Your task to perform on an android device: turn off airplane mode Image 0: 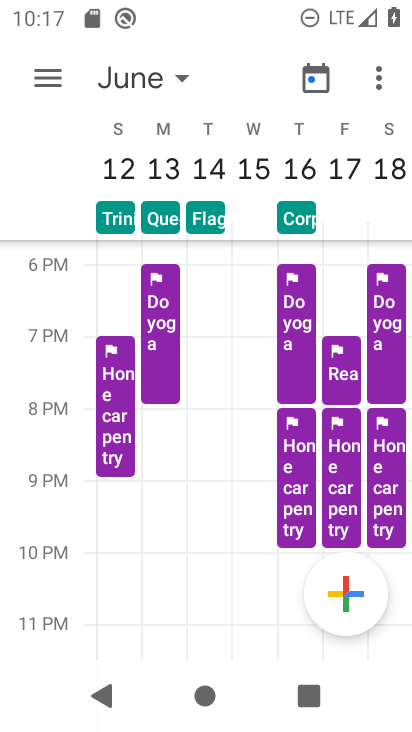
Step 0: press home button
Your task to perform on an android device: turn off airplane mode Image 1: 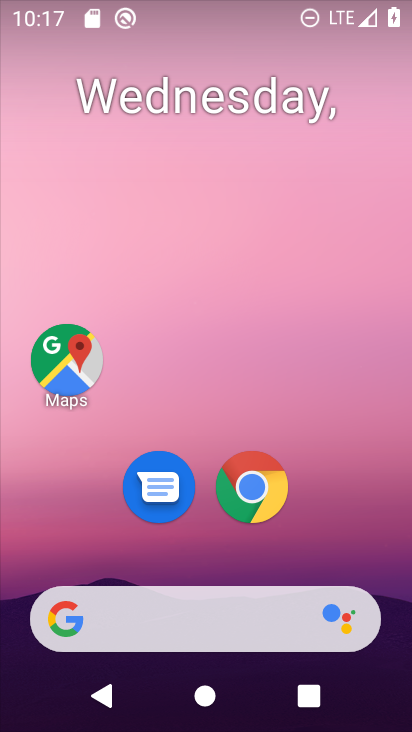
Step 1: drag from (374, 528) to (239, 106)
Your task to perform on an android device: turn off airplane mode Image 2: 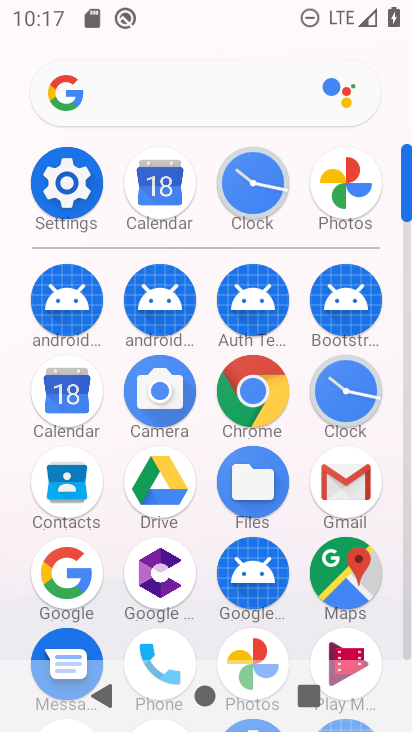
Step 2: click (55, 167)
Your task to perform on an android device: turn off airplane mode Image 3: 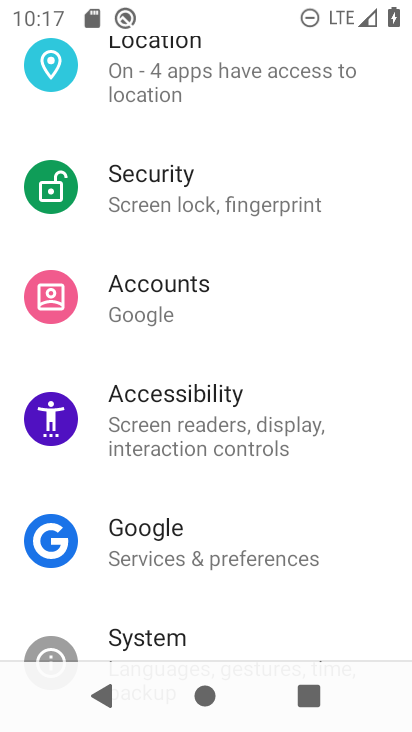
Step 3: drag from (220, 145) to (344, 725)
Your task to perform on an android device: turn off airplane mode Image 4: 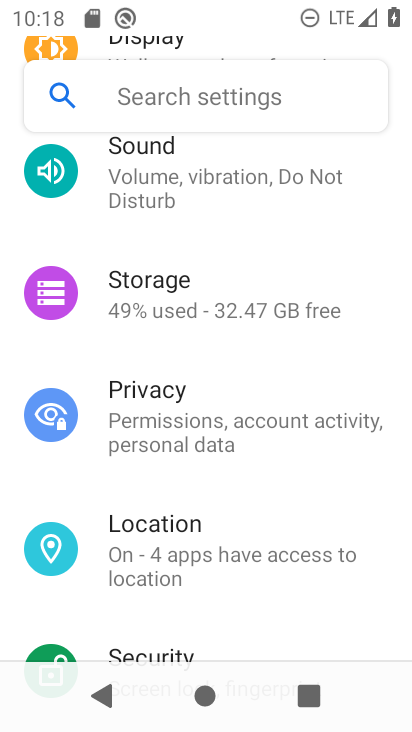
Step 4: drag from (275, 460) to (245, 251)
Your task to perform on an android device: turn off airplane mode Image 5: 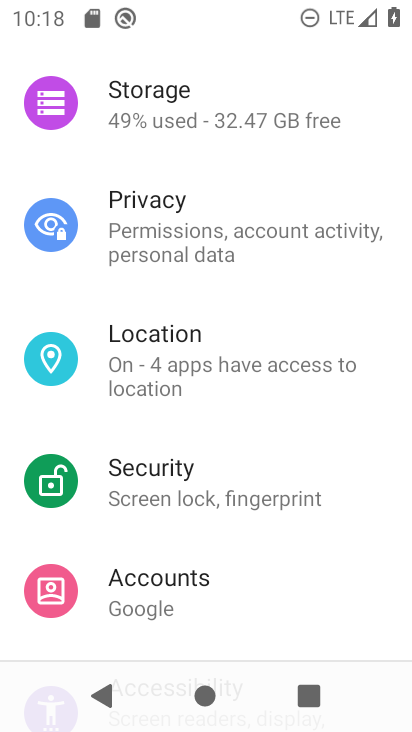
Step 5: drag from (224, 174) to (241, 611)
Your task to perform on an android device: turn off airplane mode Image 6: 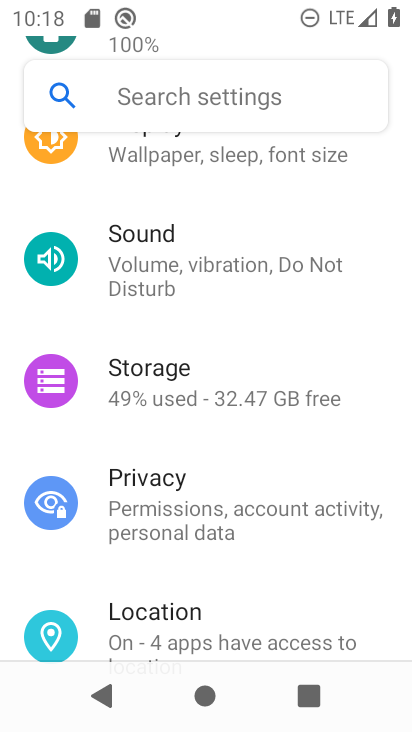
Step 6: drag from (184, 208) to (189, 673)
Your task to perform on an android device: turn off airplane mode Image 7: 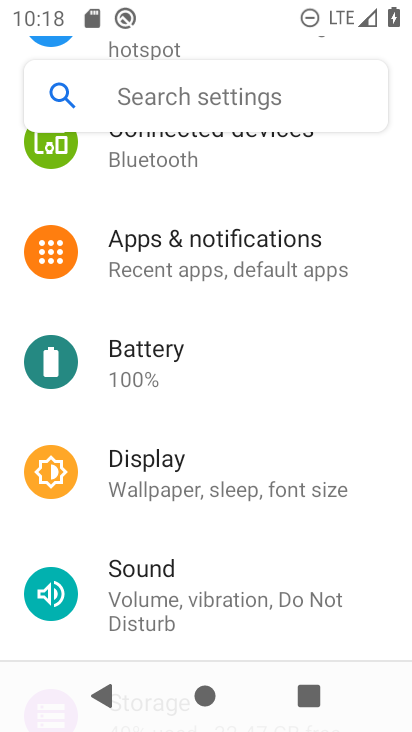
Step 7: drag from (182, 189) to (164, 640)
Your task to perform on an android device: turn off airplane mode Image 8: 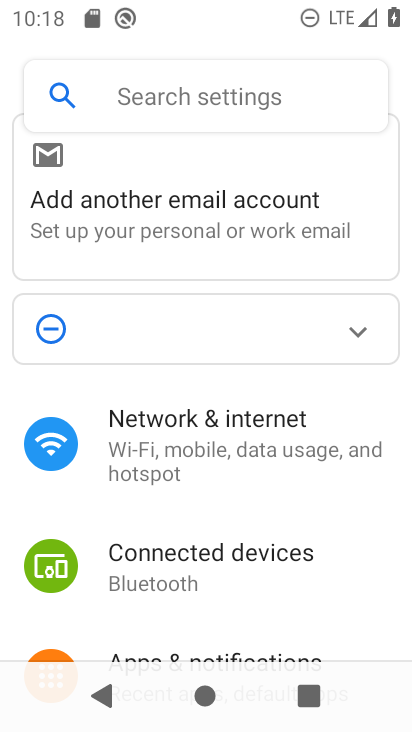
Step 8: click (161, 423)
Your task to perform on an android device: turn off airplane mode Image 9: 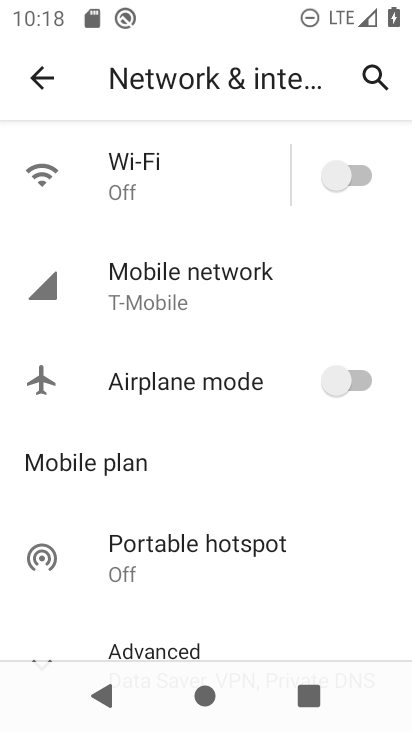
Step 9: task complete